Your task to perform on an android device: see tabs open on other devices in the chrome app Image 0: 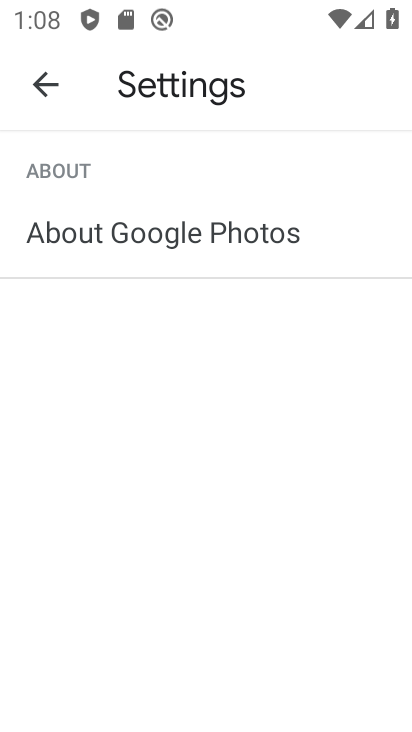
Step 0: press home button
Your task to perform on an android device: see tabs open on other devices in the chrome app Image 1: 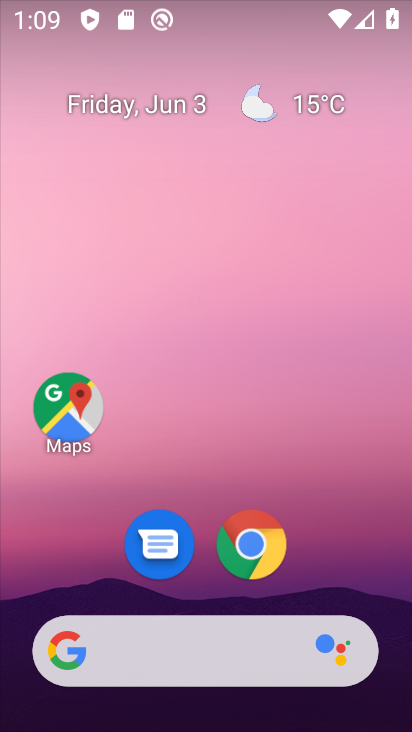
Step 1: click (245, 561)
Your task to perform on an android device: see tabs open on other devices in the chrome app Image 2: 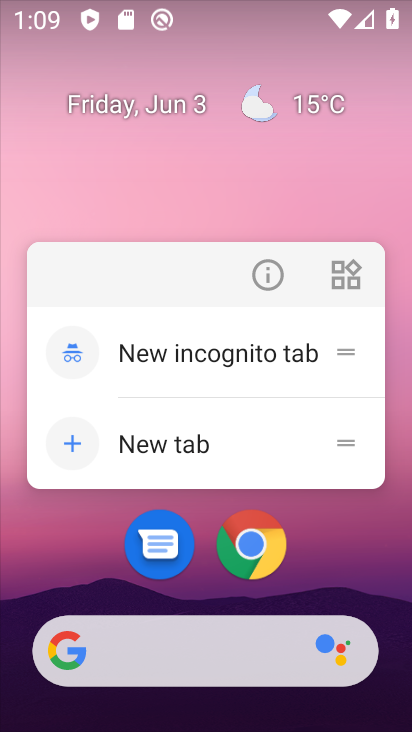
Step 2: click (278, 550)
Your task to perform on an android device: see tabs open on other devices in the chrome app Image 3: 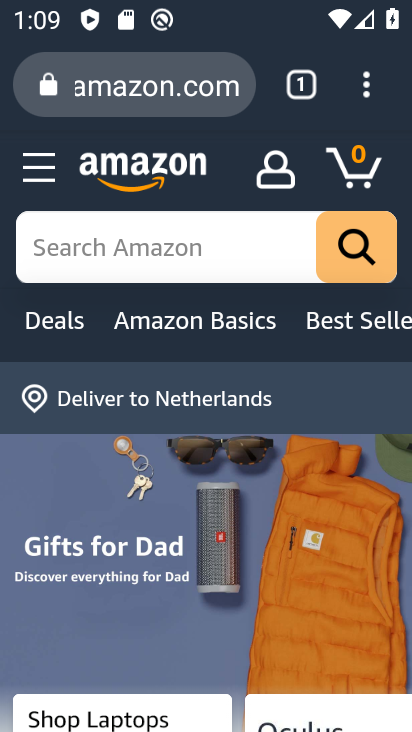
Step 3: click (277, 77)
Your task to perform on an android device: see tabs open on other devices in the chrome app Image 4: 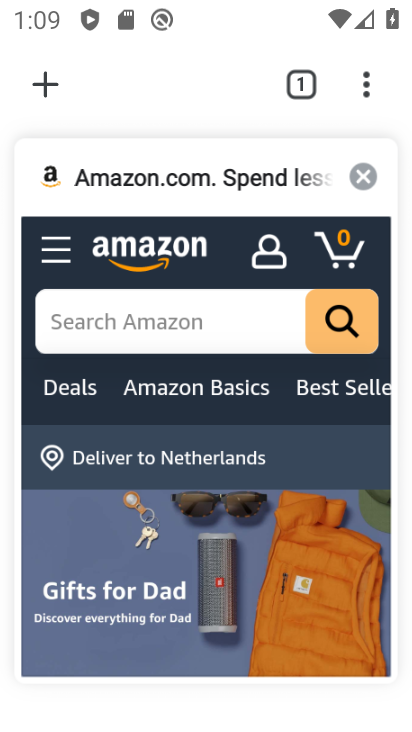
Step 4: task complete